Your task to perform on an android device: Search for "jbl flip 4" on newegg, select the first entry, add it to the cart, then select checkout. Image 0: 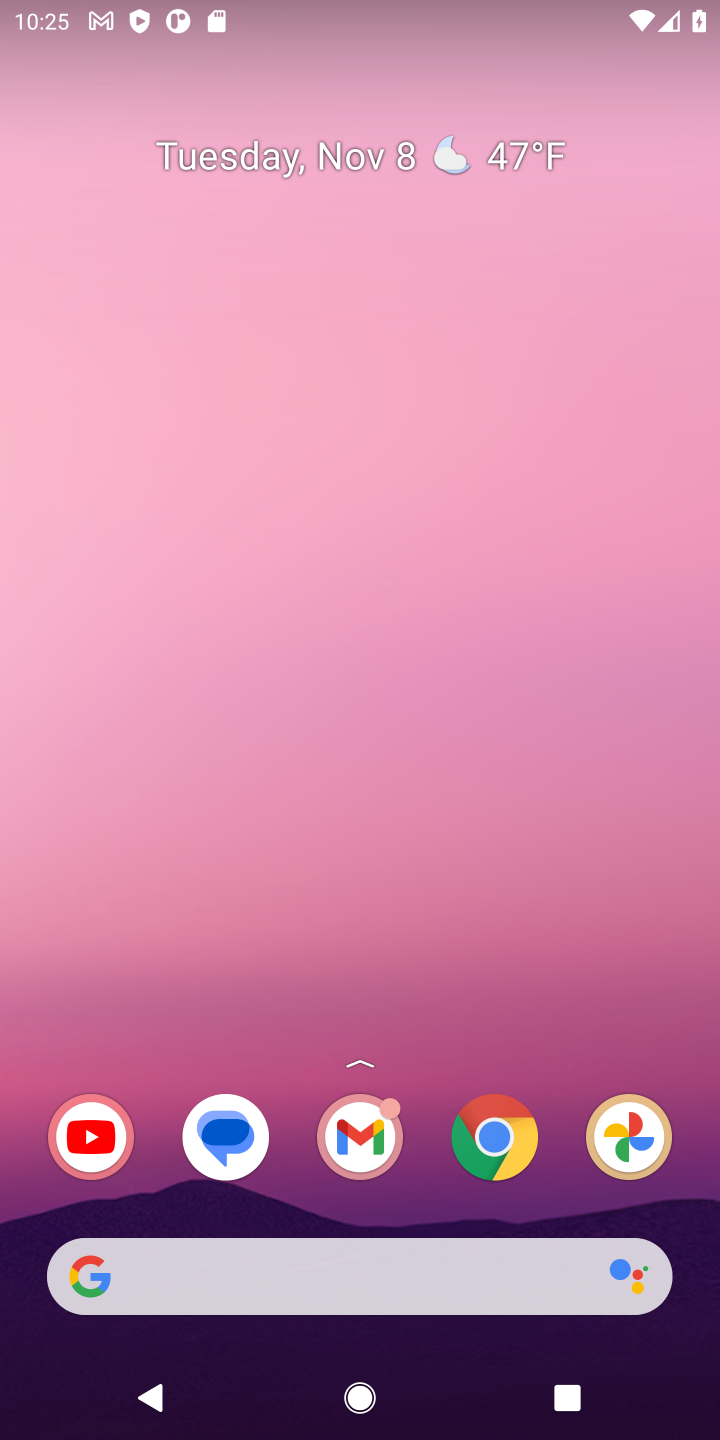
Step 0: click (496, 1137)
Your task to perform on an android device: Search for "jbl flip 4" on newegg, select the first entry, add it to the cart, then select checkout. Image 1: 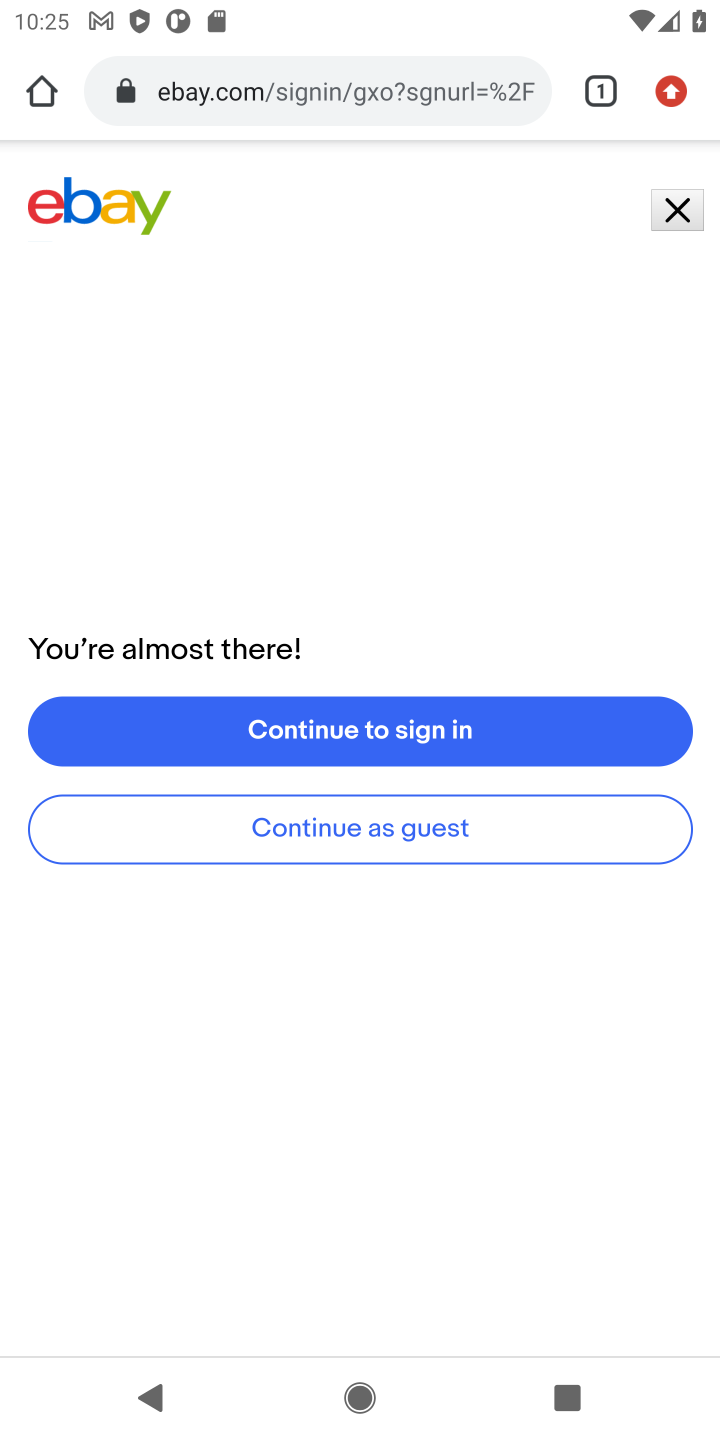
Step 1: click (346, 98)
Your task to perform on an android device: Search for "jbl flip 4" on newegg, select the first entry, add it to the cart, then select checkout. Image 2: 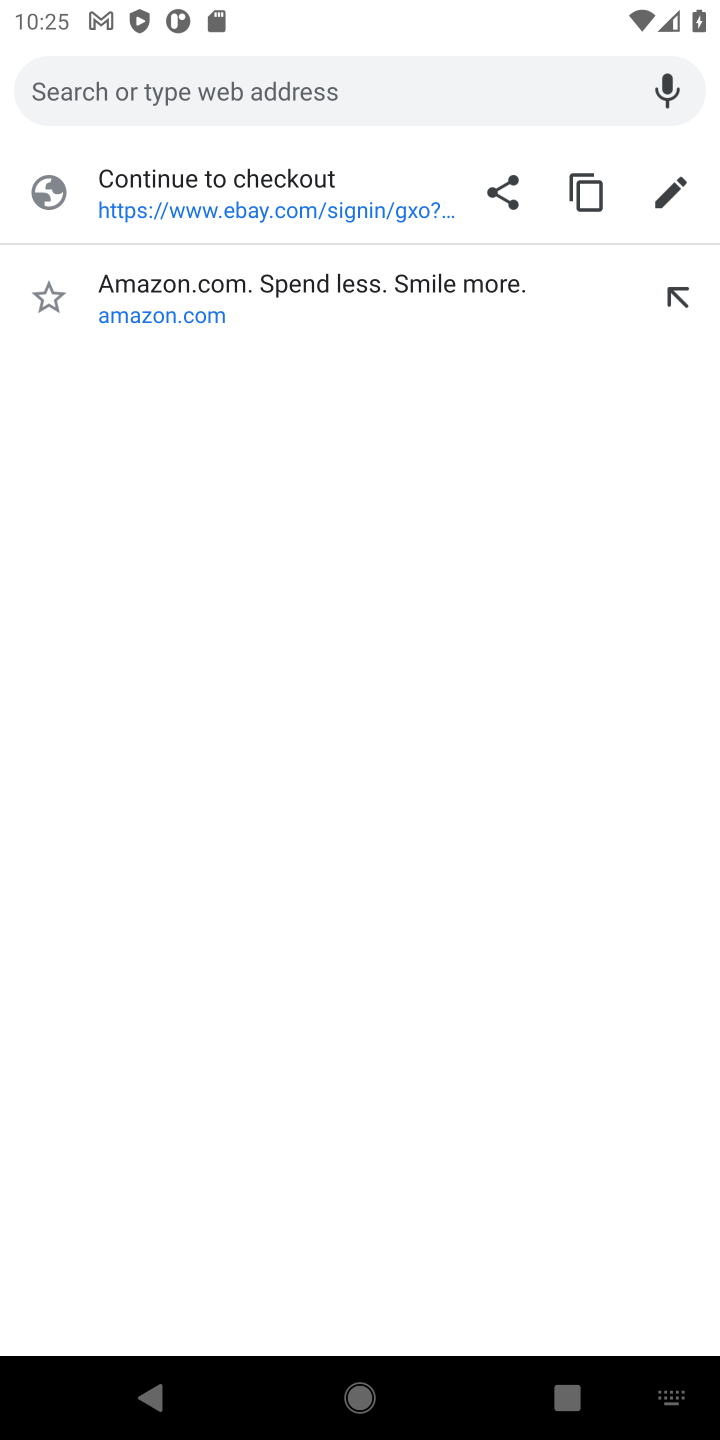
Step 2: type "newegg"
Your task to perform on an android device: Search for "jbl flip 4" on newegg, select the first entry, add it to the cart, then select checkout. Image 3: 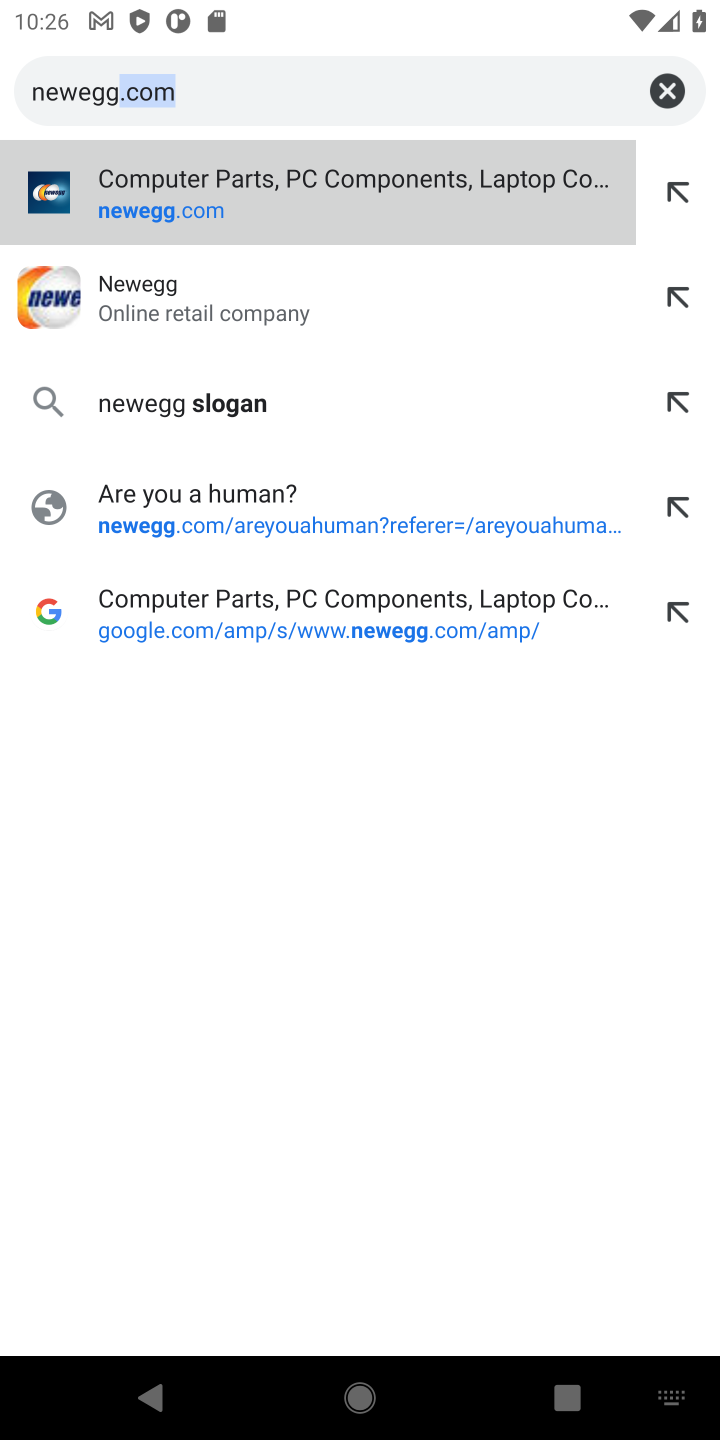
Step 3: click (185, 335)
Your task to perform on an android device: Search for "jbl flip 4" on newegg, select the first entry, add it to the cart, then select checkout. Image 4: 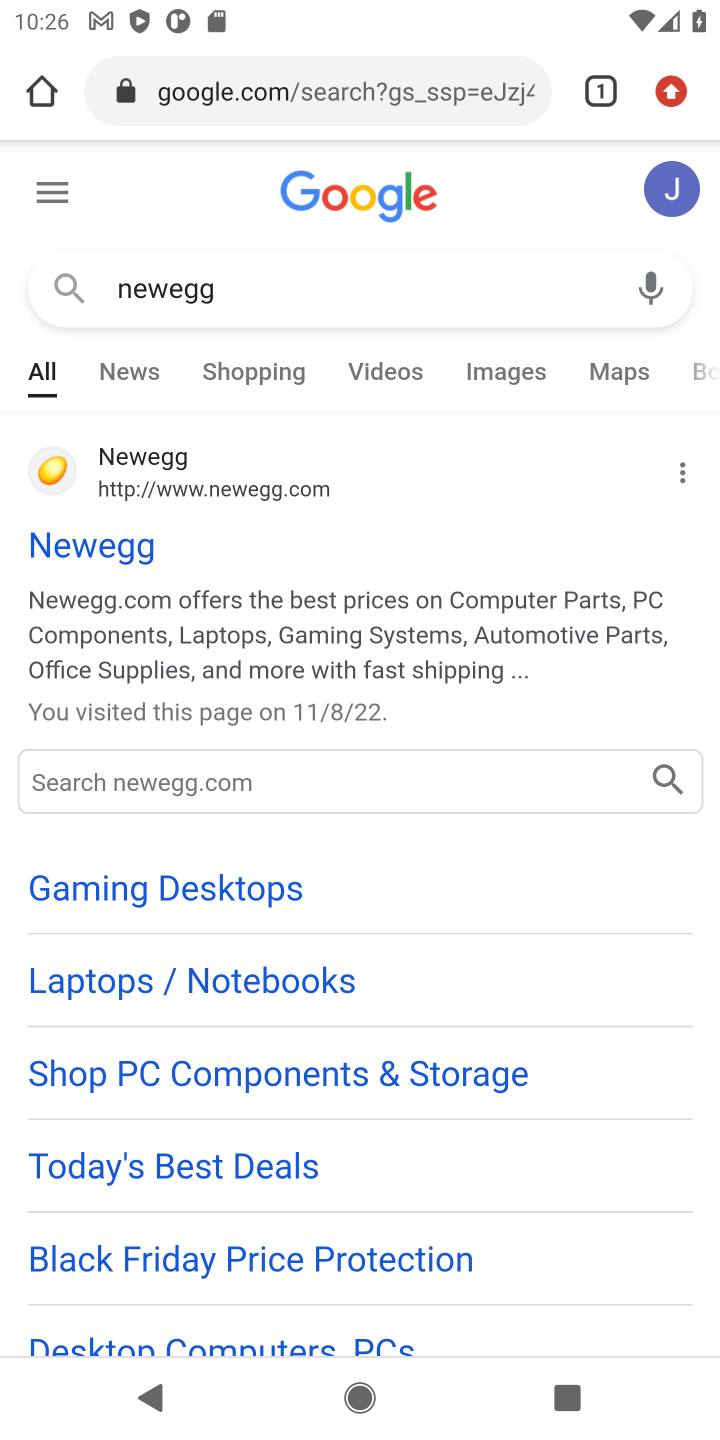
Step 4: click (134, 524)
Your task to perform on an android device: Search for "jbl flip 4" on newegg, select the first entry, add it to the cart, then select checkout. Image 5: 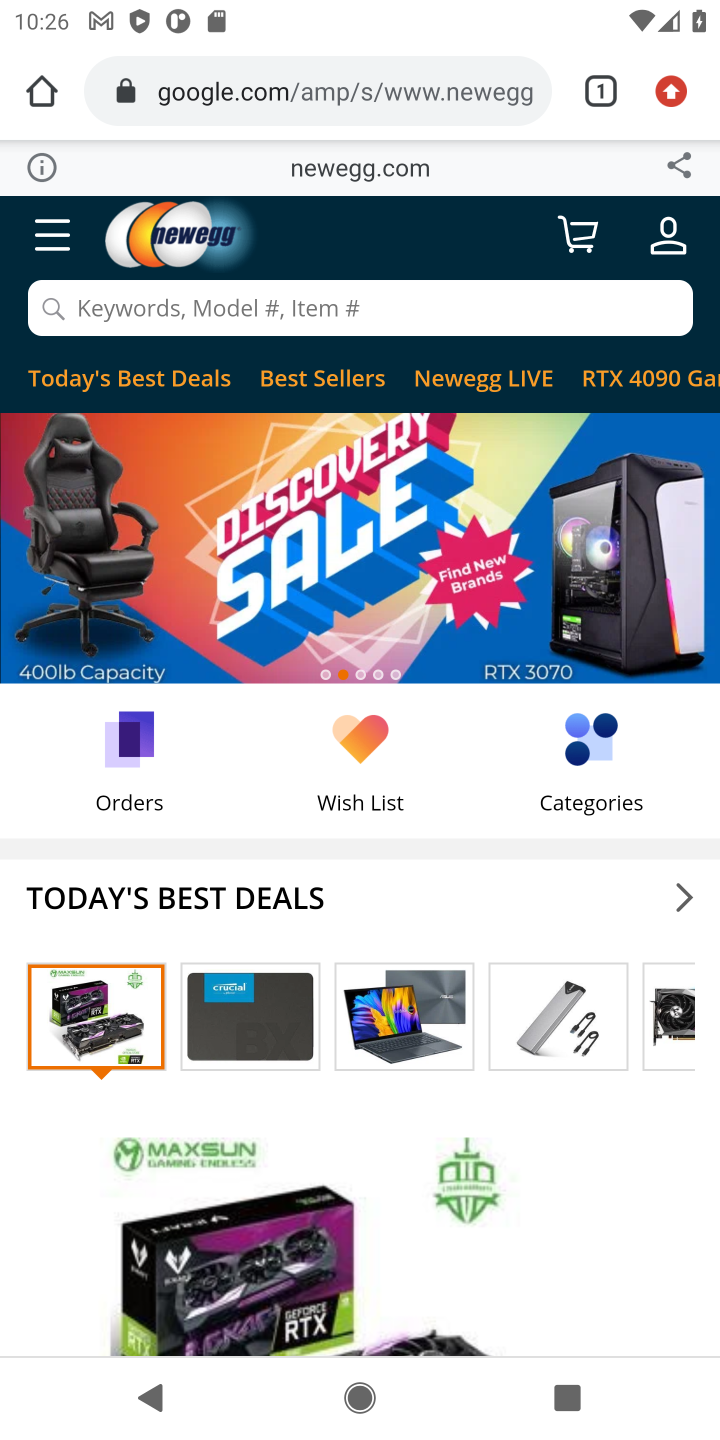
Step 5: click (169, 301)
Your task to perform on an android device: Search for "jbl flip 4" on newegg, select the first entry, add it to the cart, then select checkout. Image 6: 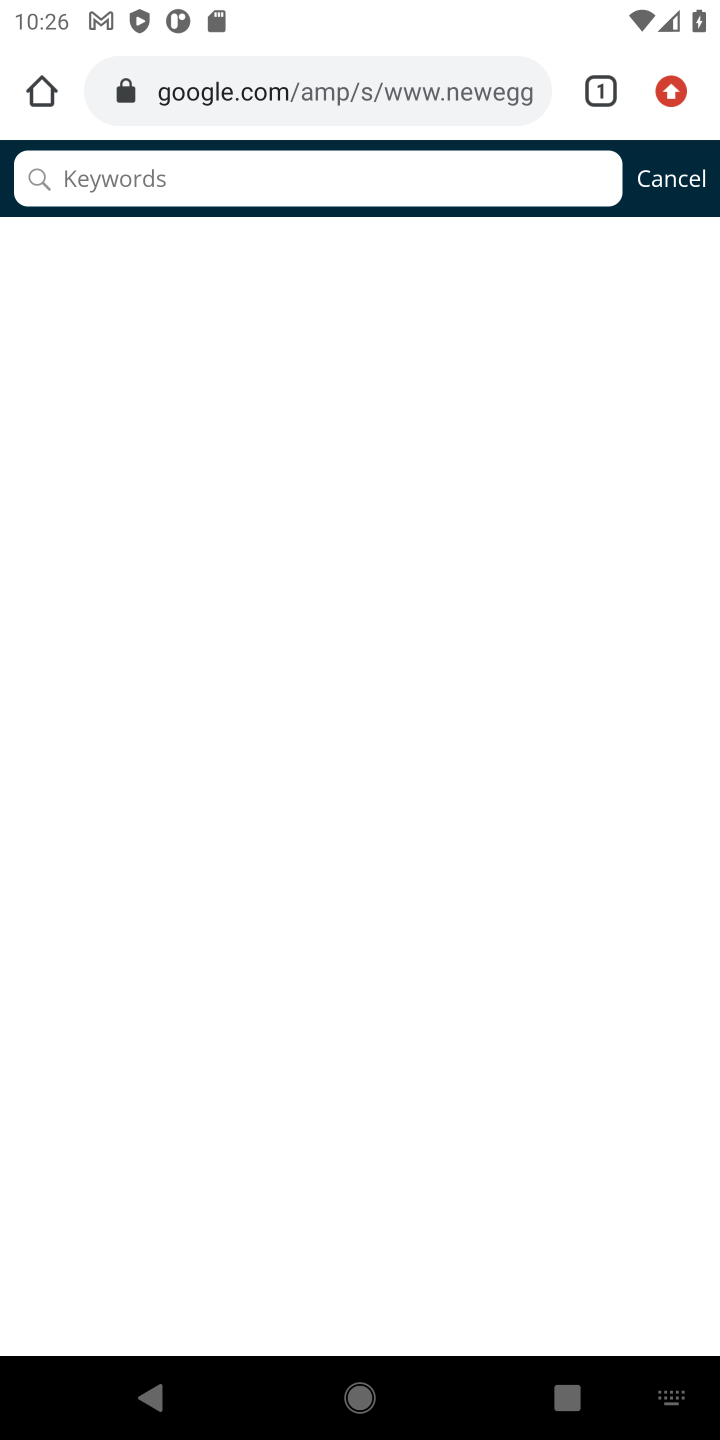
Step 6: type "jbl flip 4"
Your task to perform on an android device: Search for "jbl flip 4" on newegg, select the first entry, add it to the cart, then select checkout. Image 7: 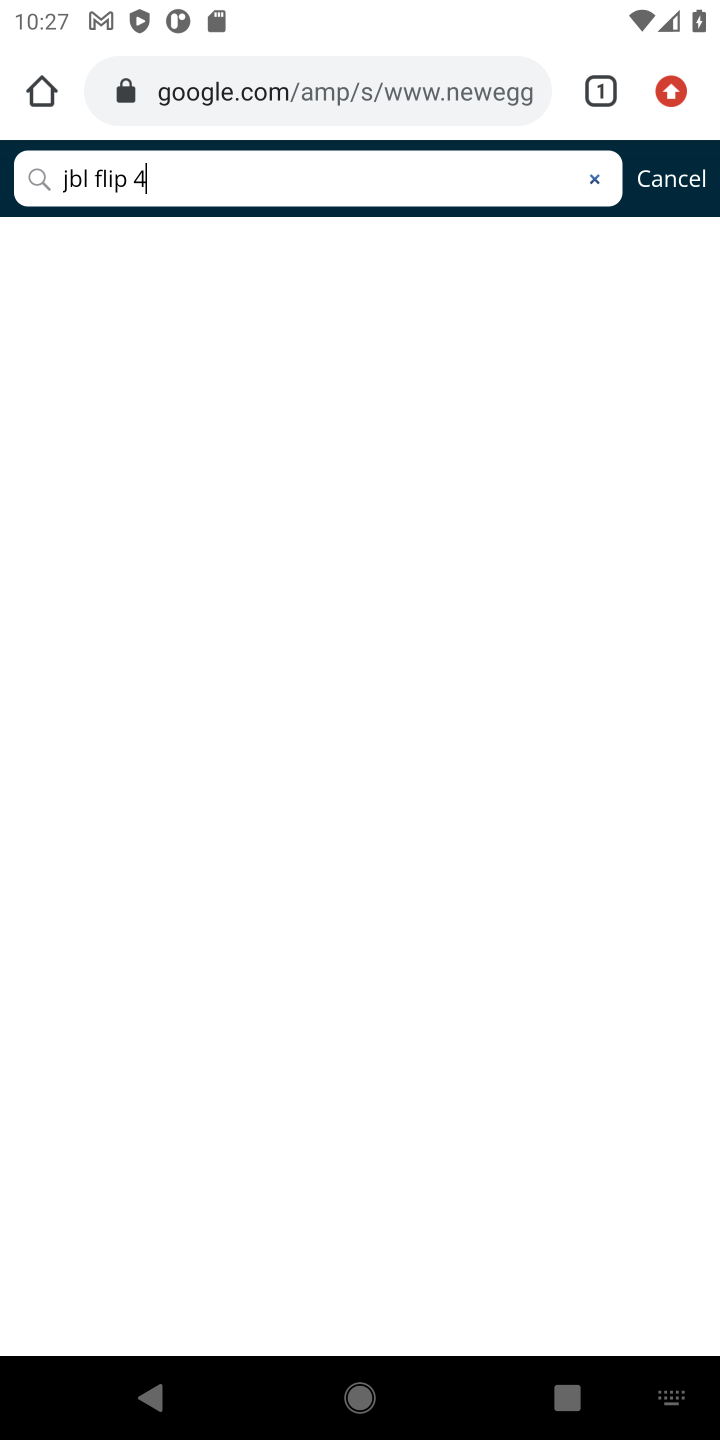
Step 7: task complete